Your task to perform on an android device: delete browsing data in the chrome app Image 0: 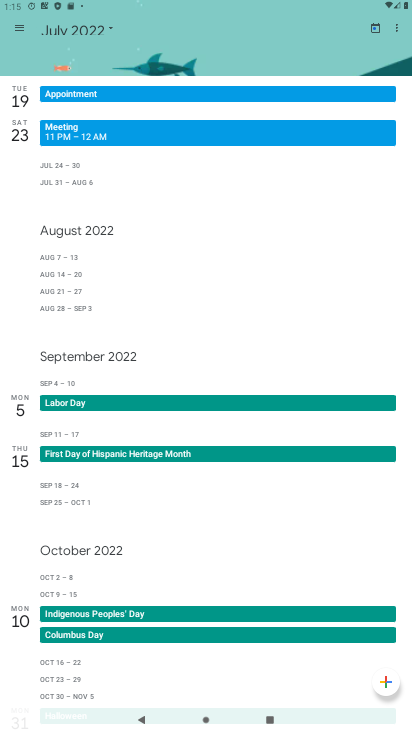
Step 0: press home button
Your task to perform on an android device: delete browsing data in the chrome app Image 1: 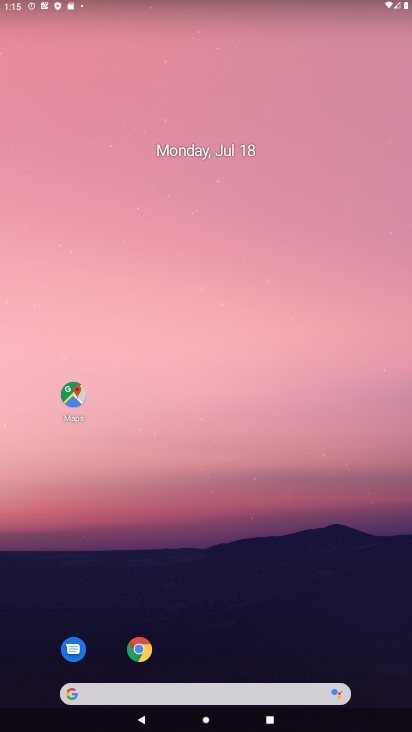
Step 1: click (143, 650)
Your task to perform on an android device: delete browsing data in the chrome app Image 2: 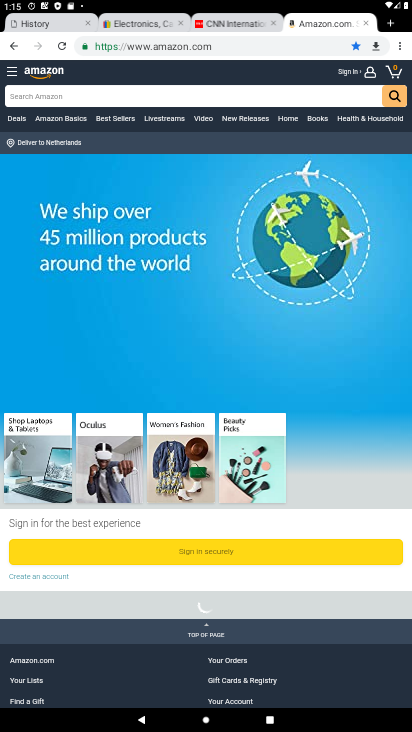
Step 2: drag from (399, 41) to (317, 305)
Your task to perform on an android device: delete browsing data in the chrome app Image 3: 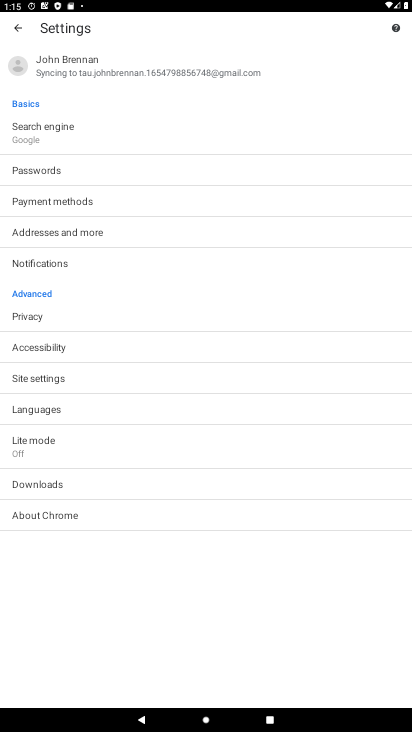
Step 3: click (34, 306)
Your task to perform on an android device: delete browsing data in the chrome app Image 4: 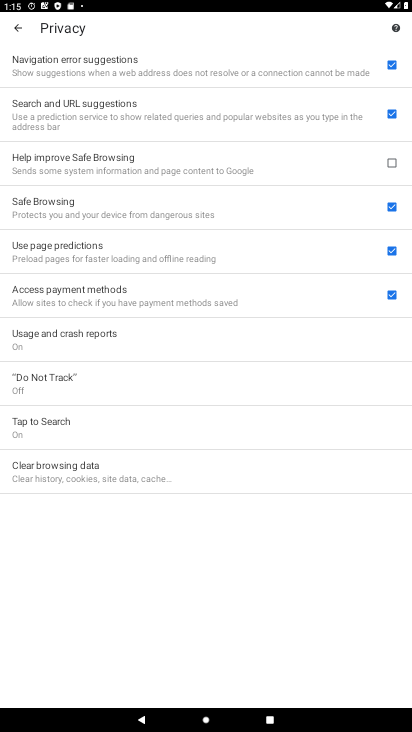
Step 4: click (68, 470)
Your task to perform on an android device: delete browsing data in the chrome app Image 5: 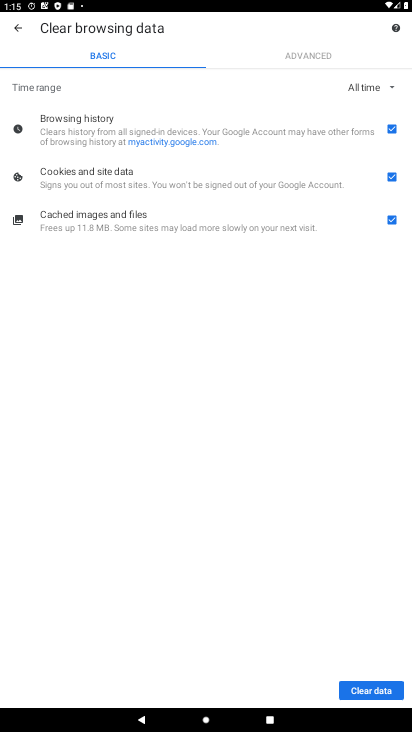
Step 5: click (351, 688)
Your task to perform on an android device: delete browsing data in the chrome app Image 6: 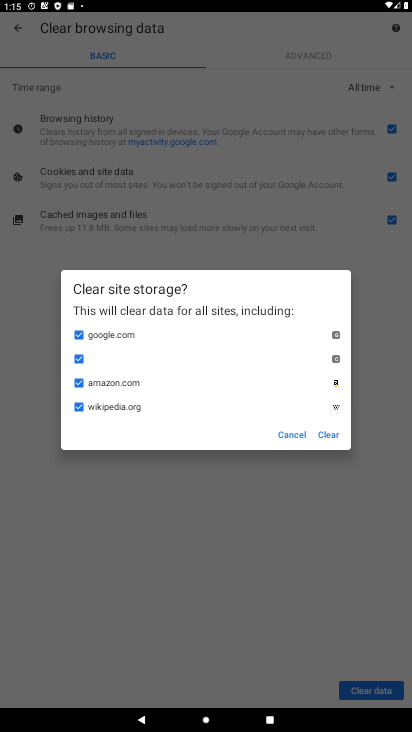
Step 6: click (332, 440)
Your task to perform on an android device: delete browsing data in the chrome app Image 7: 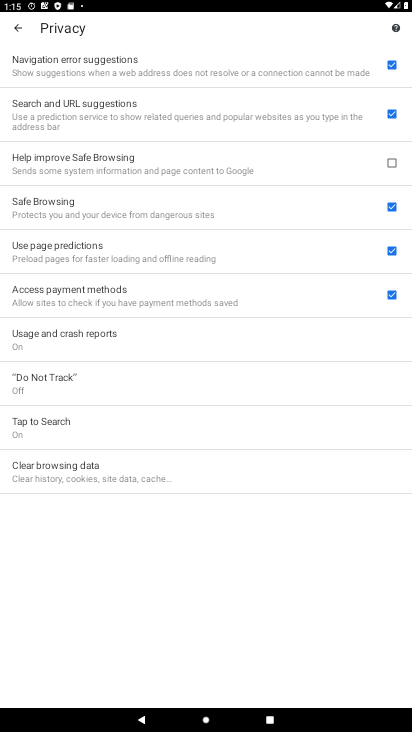
Step 7: task complete